Your task to perform on an android device: Turn on the flashlight Image 0: 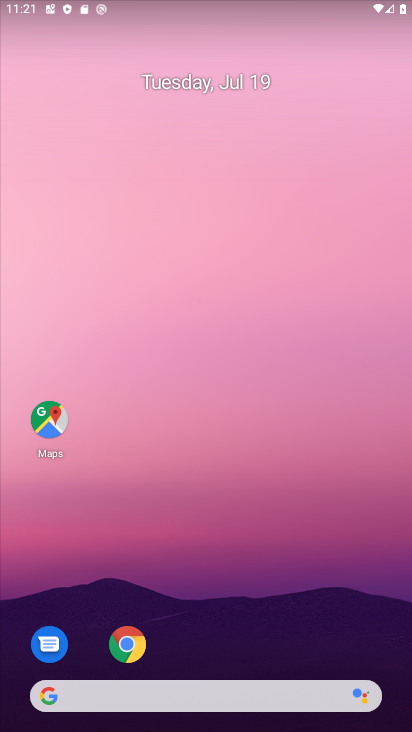
Step 0: press home button
Your task to perform on an android device: Turn on the flashlight Image 1: 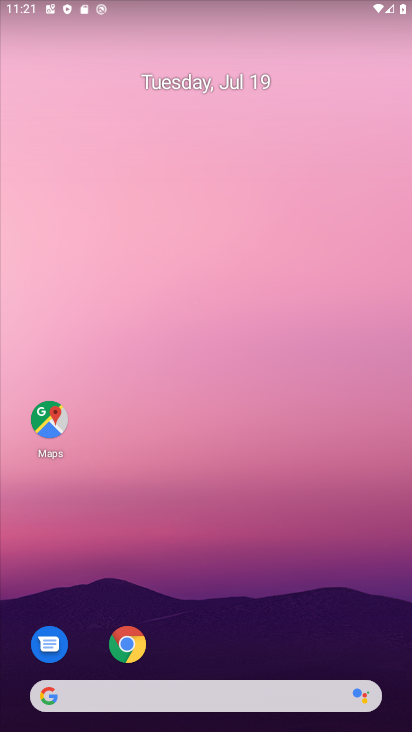
Step 1: task complete